Your task to perform on an android device: Open Google Maps Image 0: 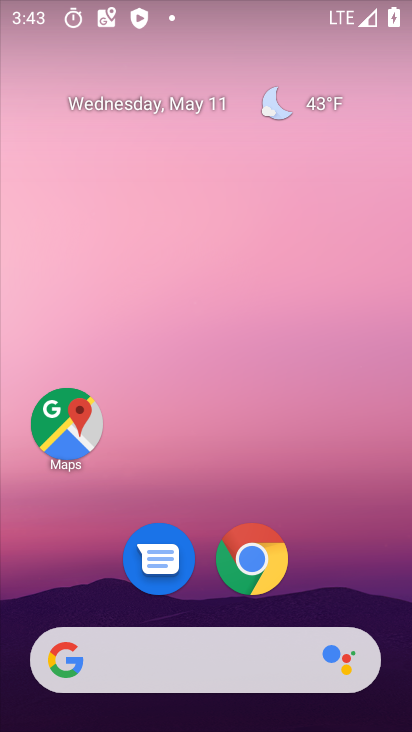
Step 0: click (72, 423)
Your task to perform on an android device: Open Google Maps Image 1: 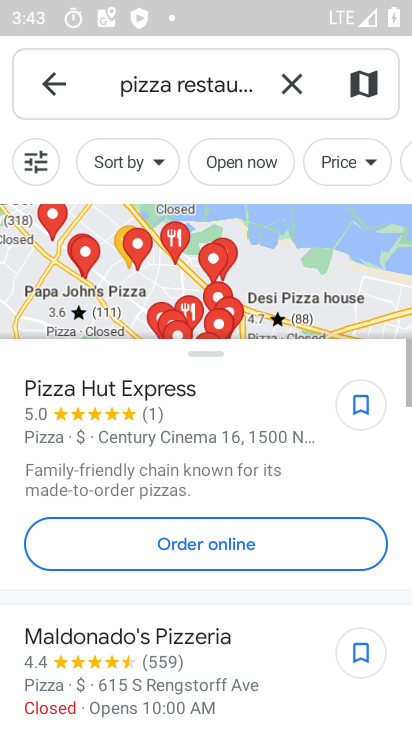
Step 1: task complete